Your task to perform on an android device: toggle wifi Image 0: 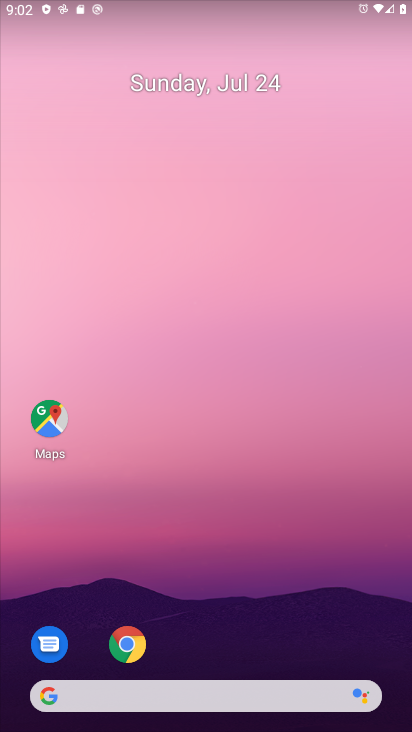
Step 0: drag from (236, 624) to (236, 70)
Your task to perform on an android device: toggle wifi Image 1: 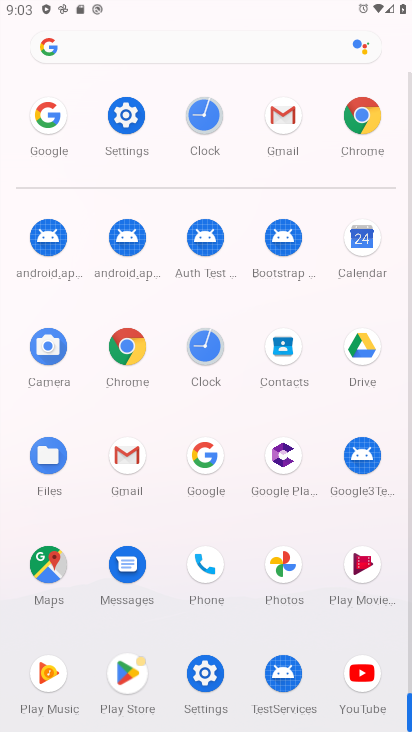
Step 1: click (124, 130)
Your task to perform on an android device: toggle wifi Image 2: 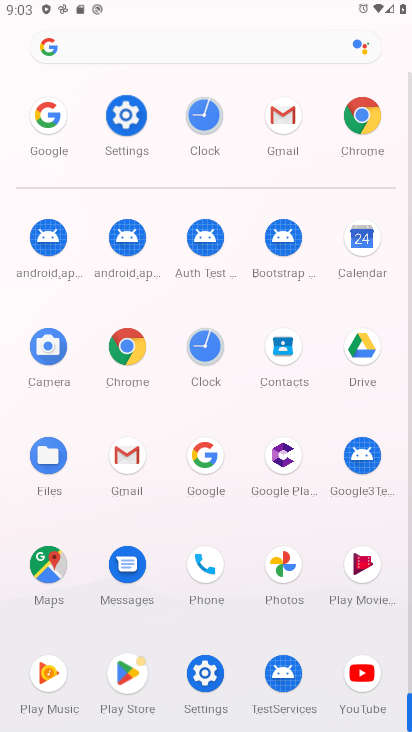
Step 2: click (125, 130)
Your task to perform on an android device: toggle wifi Image 3: 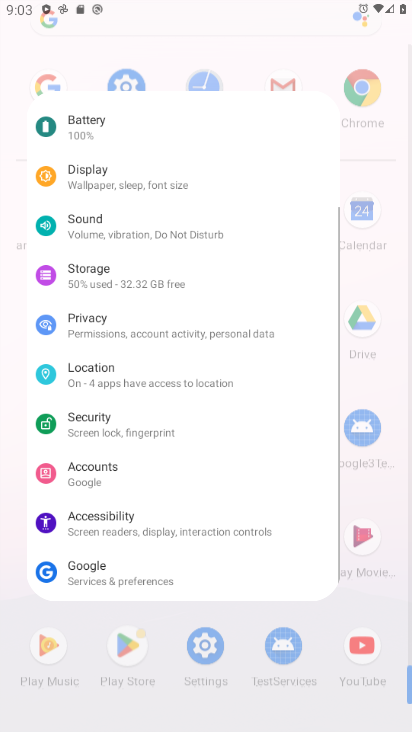
Step 3: click (126, 131)
Your task to perform on an android device: toggle wifi Image 4: 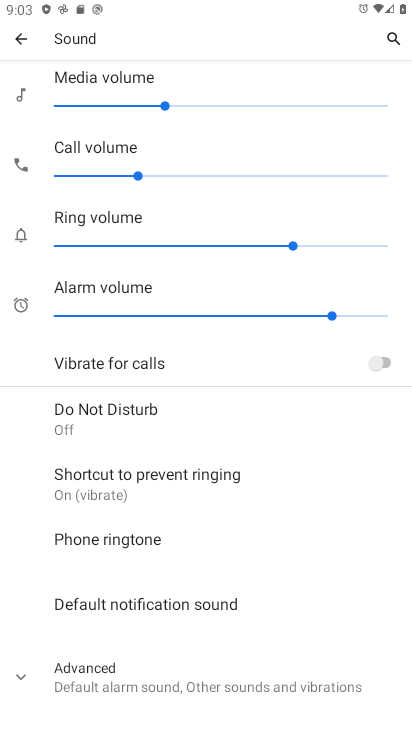
Step 4: drag from (104, 117) to (158, 418)
Your task to perform on an android device: toggle wifi Image 5: 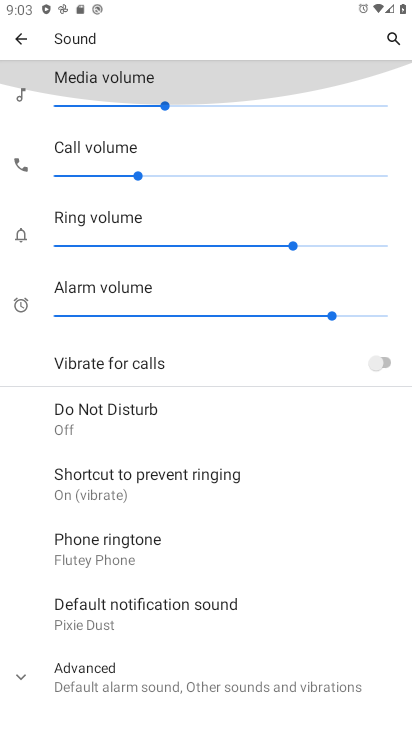
Step 5: drag from (181, 171) to (212, 468)
Your task to perform on an android device: toggle wifi Image 6: 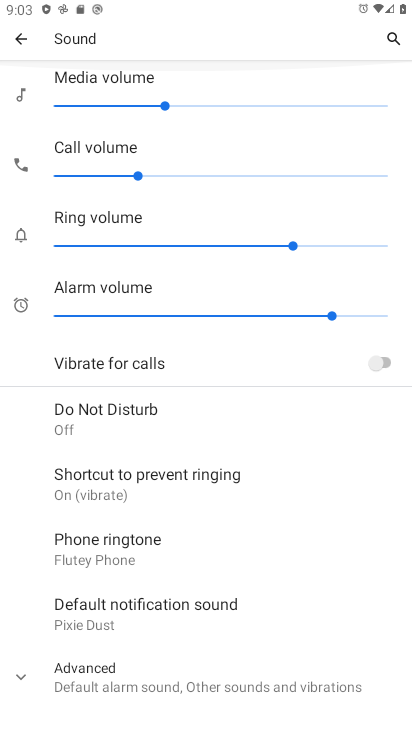
Step 6: drag from (145, 167) to (169, 459)
Your task to perform on an android device: toggle wifi Image 7: 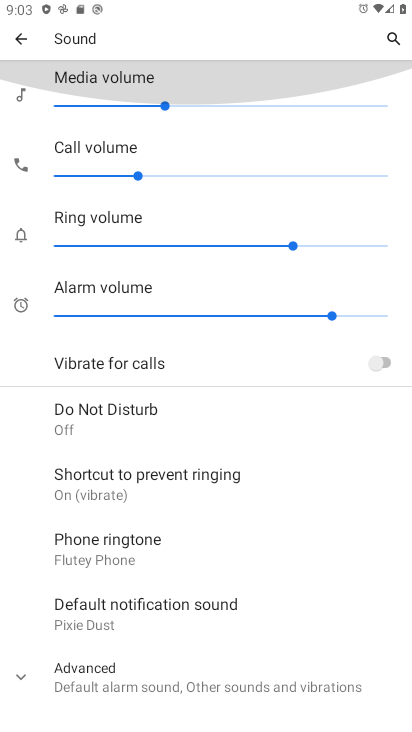
Step 7: drag from (141, 208) to (202, 493)
Your task to perform on an android device: toggle wifi Image 8: 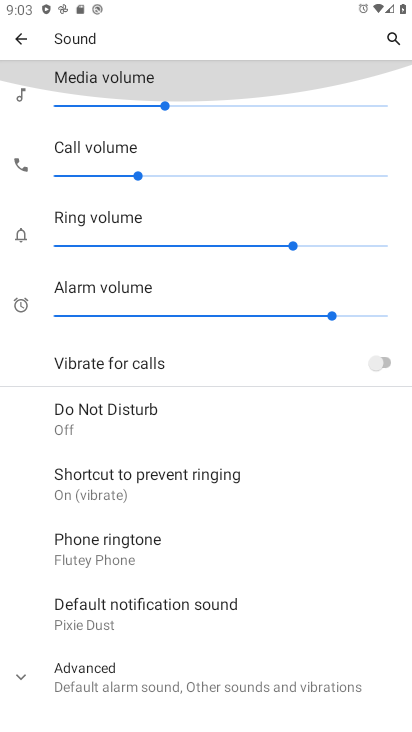
Step 8: drag from (157, 149) to (168, 460)
Your task to perform on an android device: toggle wifi Image 9: 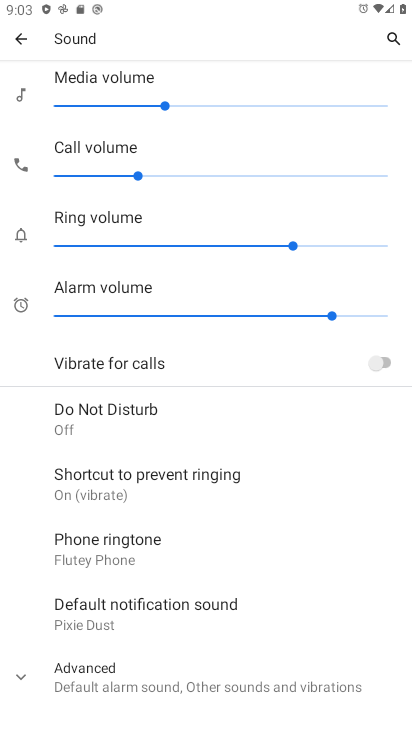
Step 9: click (13, 32)
Your task to perform on an android device: toggle wifi Image 10: 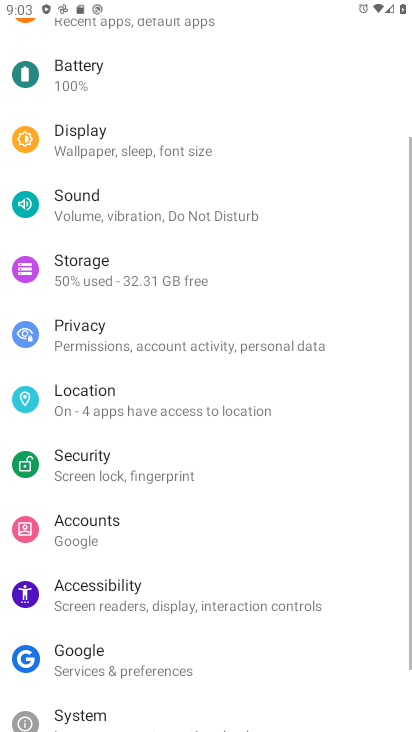
Step 10: drag from (136, 122) to (144, 538)
Your task to perform on an android device: toggle wifi Image 11: 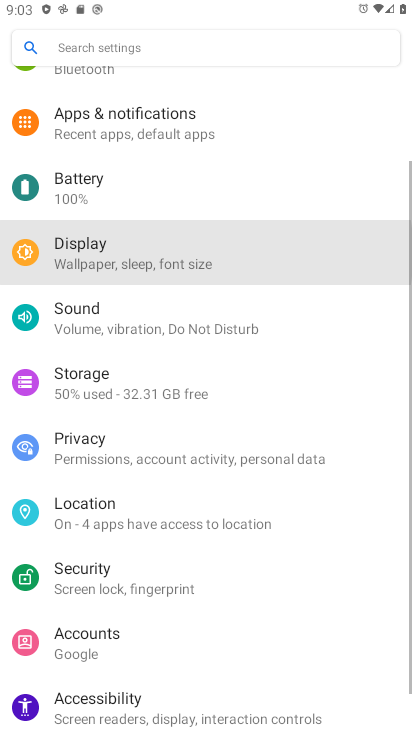
Step 11: drag from (144, 209) to (196, 580)
Your task to perform on an android device: toggle wifi Image 12: 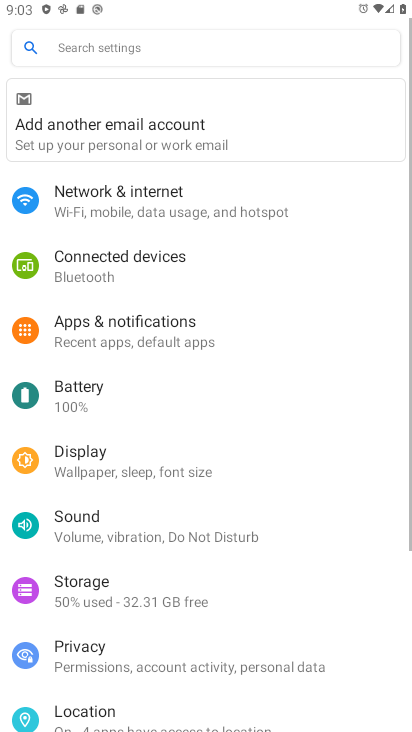
Step 12: drag from (179, 152) to (197, 575)
Your task to perform on an android device: toggle wifi Image 13: 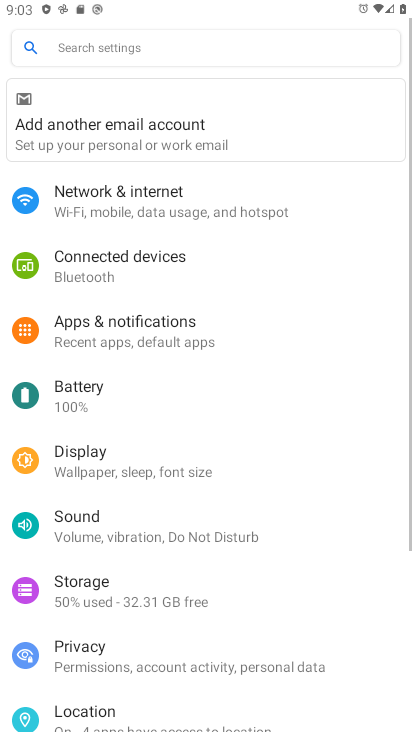
Step 13: drag from (158, 251) to (172, 526)
Your task to perform on an android device: toggle wifi Image 14: 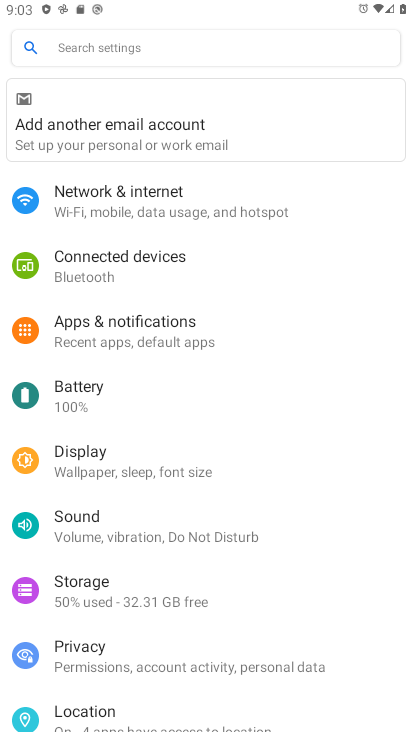
Step 14: click (131, 202)
Your task to perform on an android device: toggle wifi Image 15: 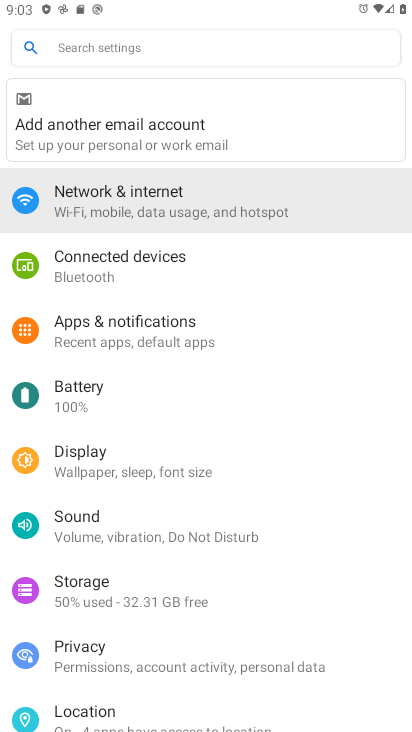
Step 15: click (132, 200)
Your task to perform on an android device: toggle wifi Image 16: 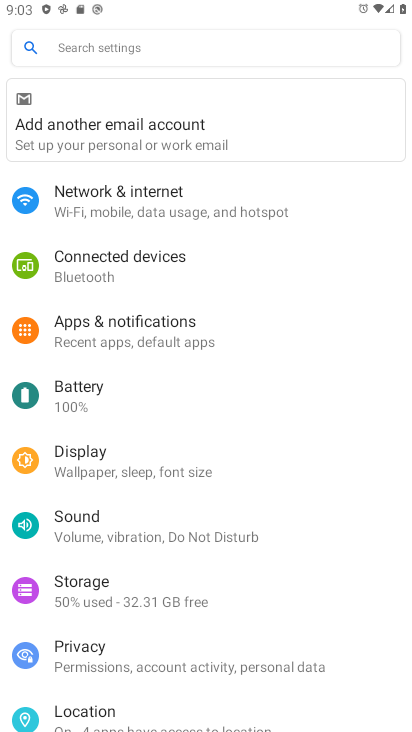
Step 16: click (135, 200)
Your task to perform on an android device: toggle wifi Image 17: 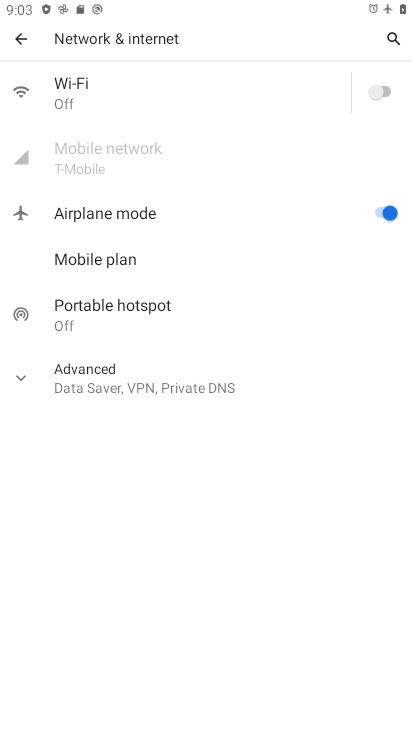
Step 17: click (379, 87)
Your task to perform on an android device: toggle wifi Image 18: 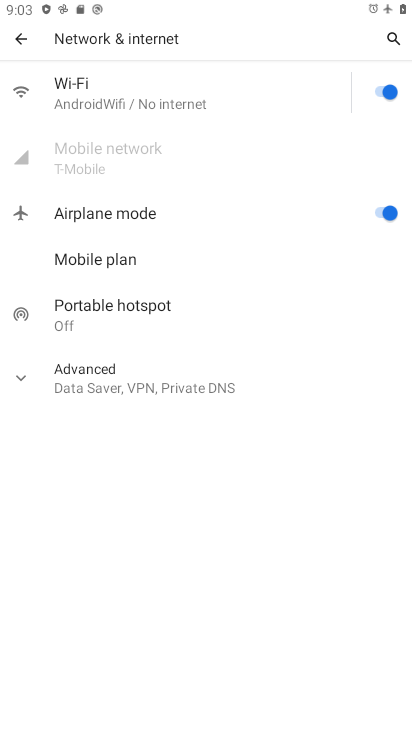
Step 18: click (384, 210)
Your task to perform on an android device: toggle wifi Image 19: 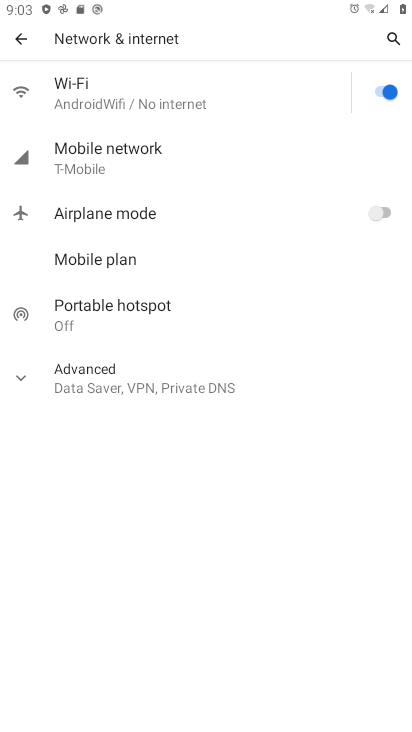
Step 19: task complete